Your task to perform on an android device: turn on javascript in the chrome app Image 0: 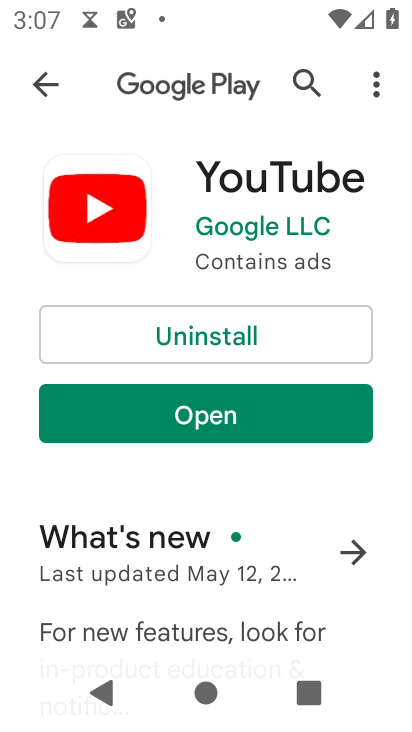
Step 0: press home button
Your task to perform on an android device: turn on javascript in the chrome app Image 1: 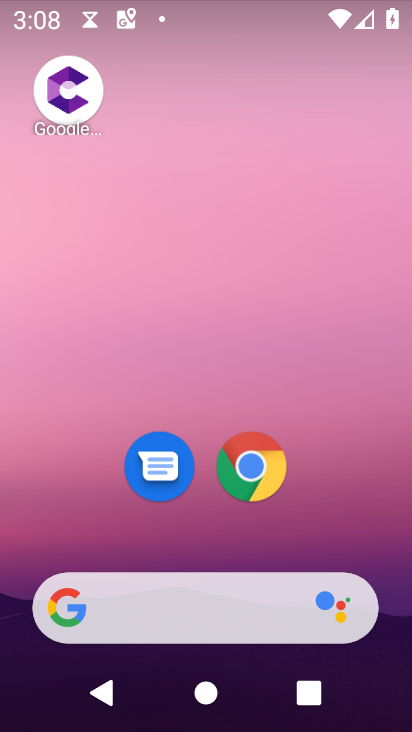
Step 1: drag from (352, 540) to (285, 166)
Your task to perform on an android device: turn on javascript in the chrome app Image 2: 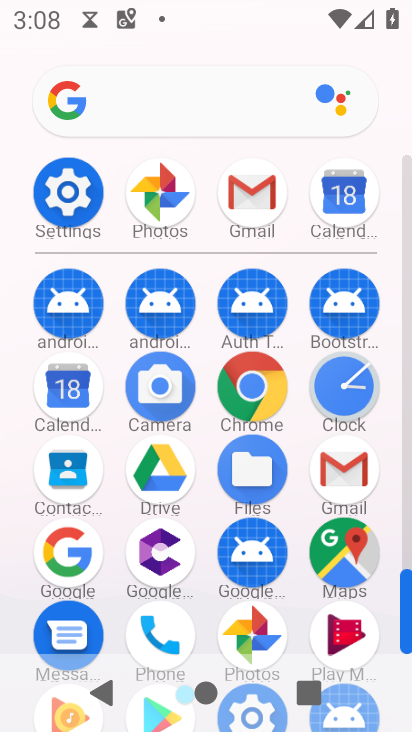
Step 2: click (261, 394)
Your task to perform on an android device: turn on javascript in the chrome app Image 3: 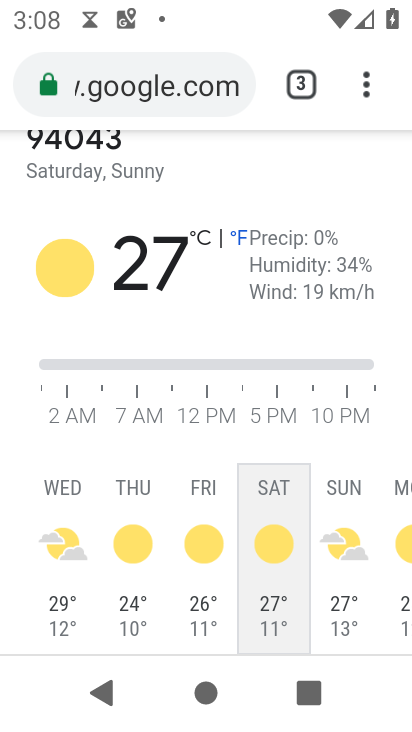
Step 3: click (361, 106)
Your task to perform on an android device: turn on javascript in the chrome app Image 4: 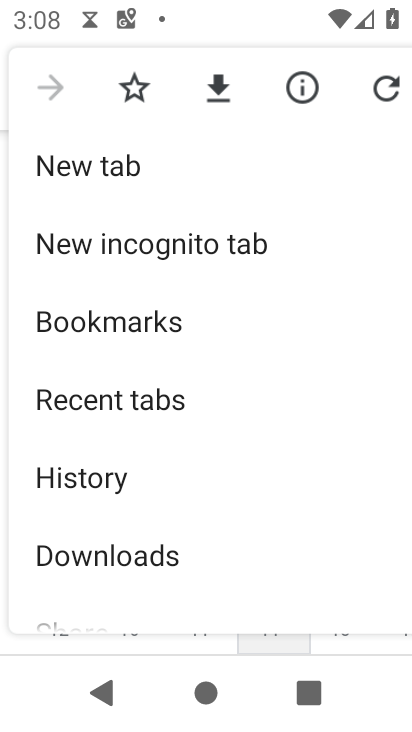
Step 4: drag from (277, 566) to (291, 175)
Your task to perform on an android device: turn on javascript in the chrome app Image 5: 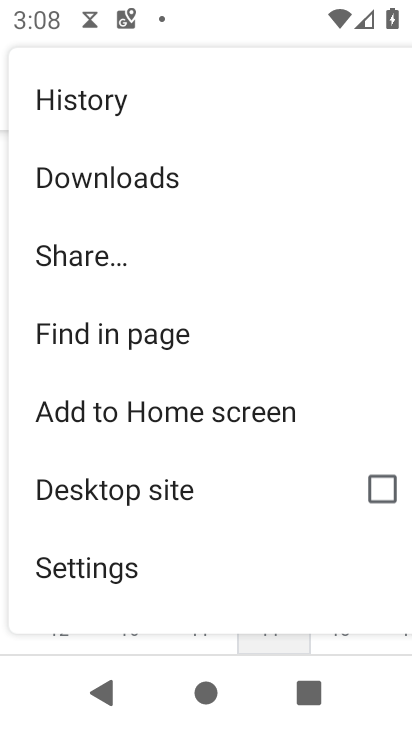
Step 5: click (184, 566)
Your task to perform on an android device: turn on javascript in the chrome app Image 6: 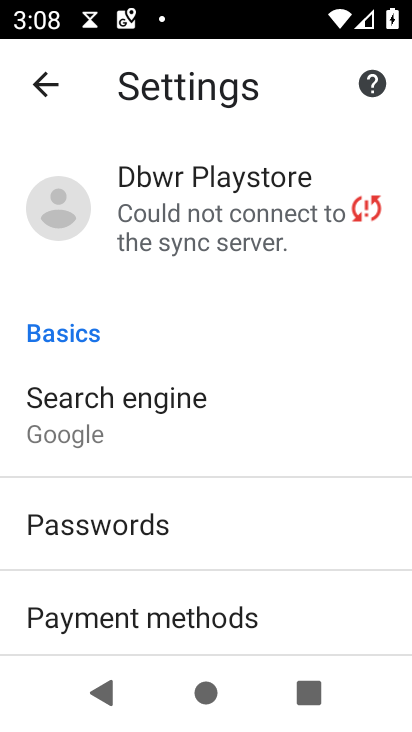
Step 6: drag from (261, 619) to (254, 190)
Your task to perform on an android device: turn on javascript in the chrome app Image 7: 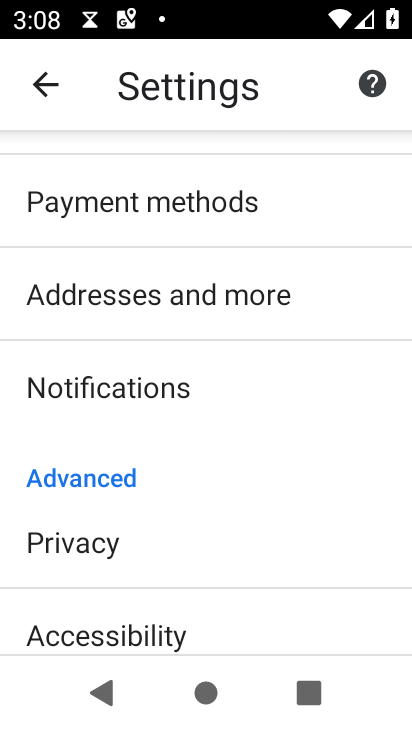
Step 7: drag from (272, 568) to (285, 204)
Your task to perform on an android device: turn on javascript in the chrome app Image 8: 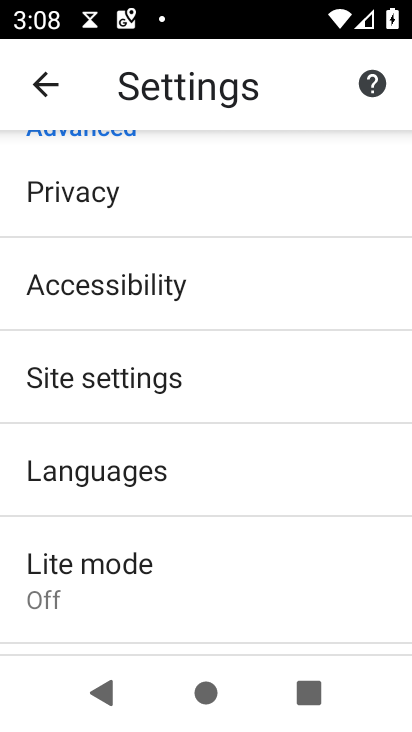
Step 8: click (240, 371)
Your task to perform on an android device: turn on javascript in the chrome app Image 9: 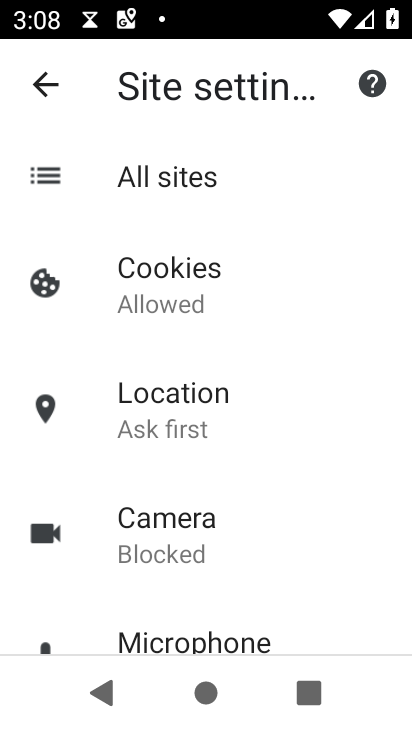
Step 9: drag from (250, 582) to (192, 163)
Your task to perform on an android device: turn on javascript in the chrome app Image 10: 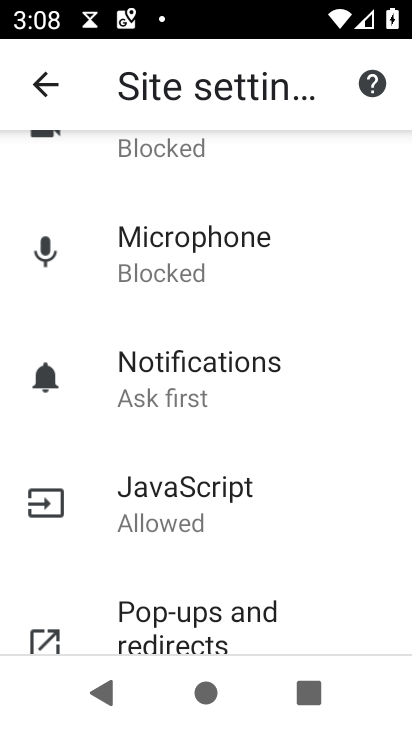
Step 10: click (183, 493)
Your task to perform on an android device: turn on javascript in the chrome app Image 11: 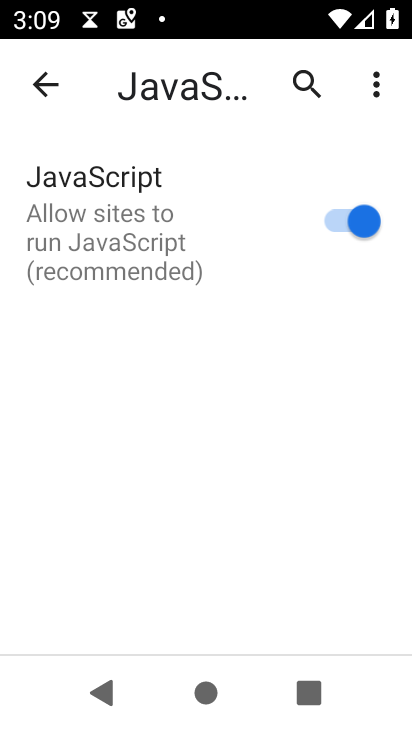
Step 11: task complete